Your task to perform on an android device: turn on airplane mode Image 0: 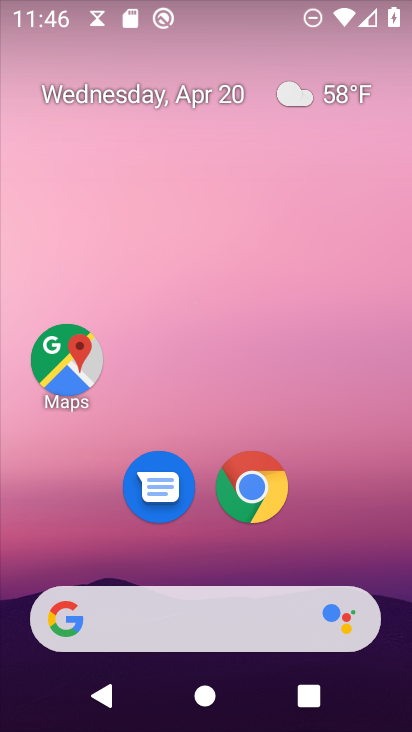
Step 0: drag from (371, 549) to (201, 44)
Your task to perform on an android device: turn on airplane mode Image 1: 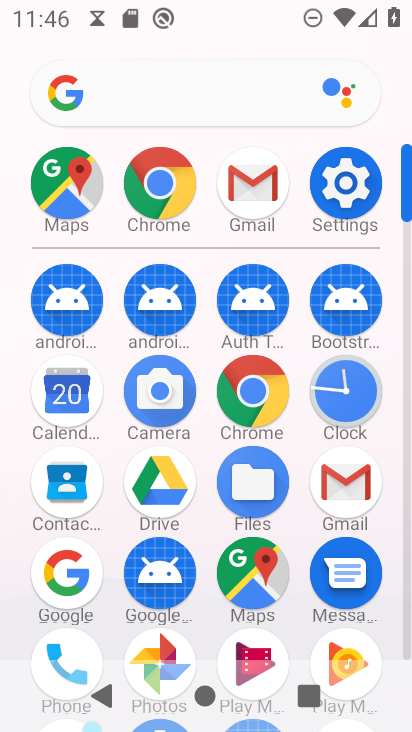
Step 1: click (345, 183)
Your task to perform on an android device: turn on airplane mode Image 2: 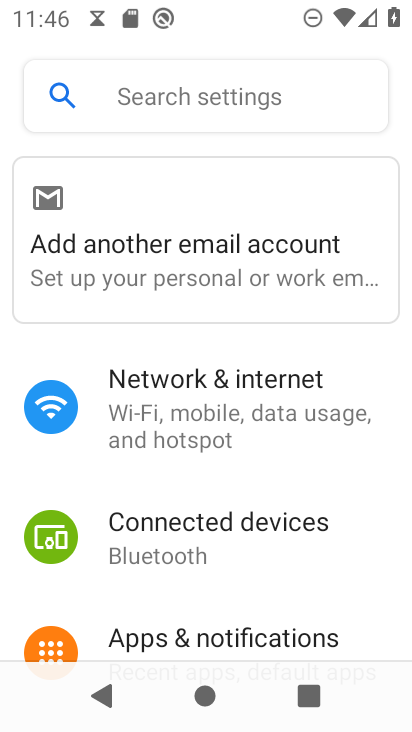
Step 2: click (295, 432)
Your task to perform on an android device: turn on airplane mode Image 3: 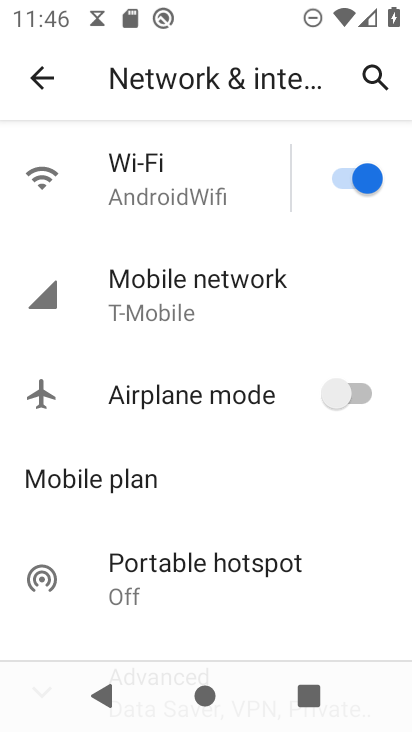
Step 3: click (349, 388)
Your task to perform on an android device: turn on airplane mode Image 4: 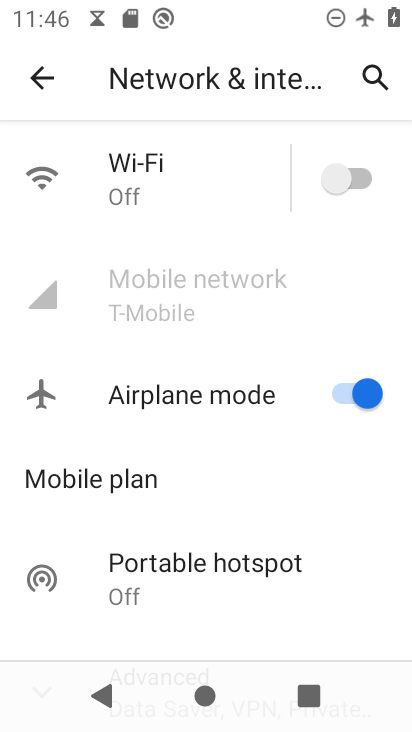
Step 4: task complete